Your task to perform on an android device: Go to battery settings Image 0: 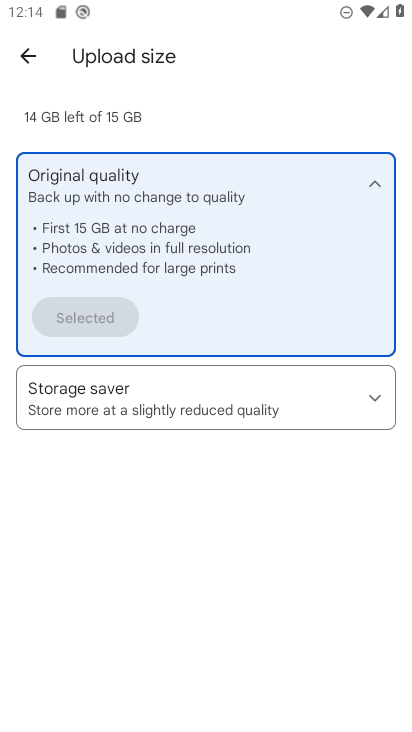
Step 0: press home button
Your task to perform on an android device: Go to battery settings Image 1: 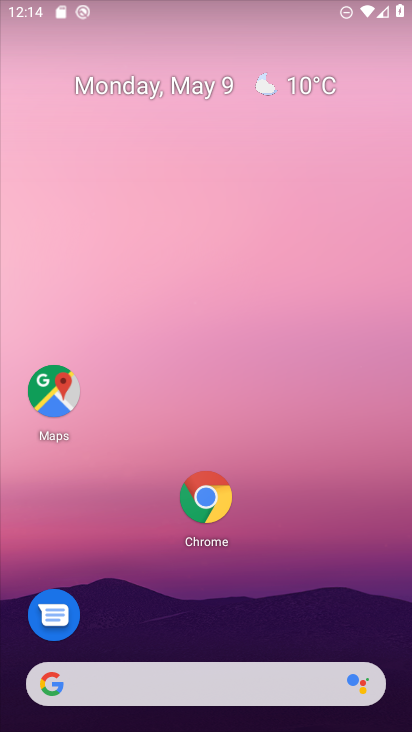
Step 1: drag from (325, 560) to (155, 15)
Your task to perform on an android device: Go to battery settings Image 2: 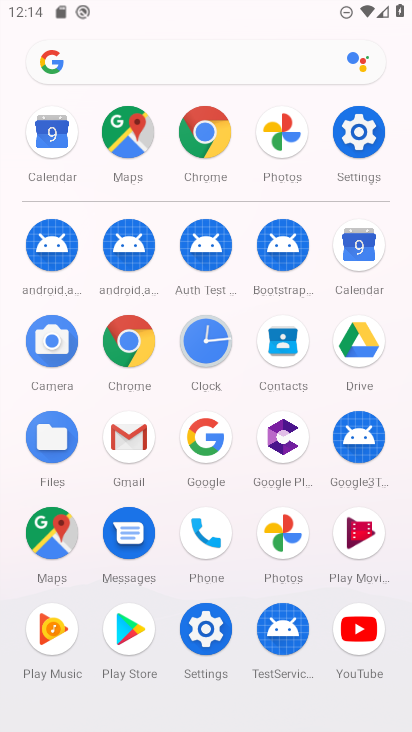
Step 2: click (350, 153)
Your task to perform on an android device: Go to battery settings Image 3: 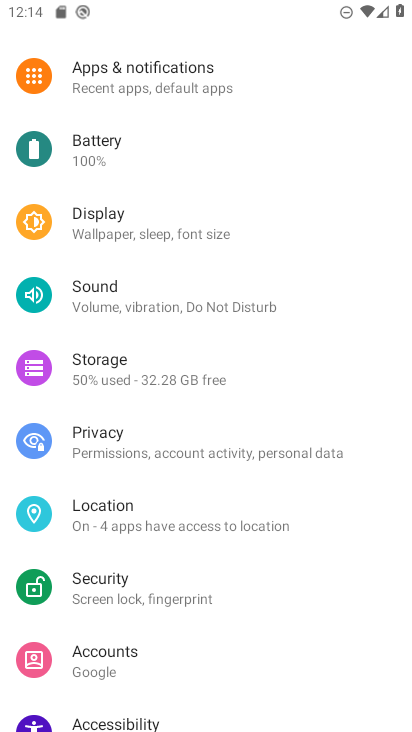
Step 3: click (139, 229)
Your task to perform on an android device: Go to battery settings Image 4: 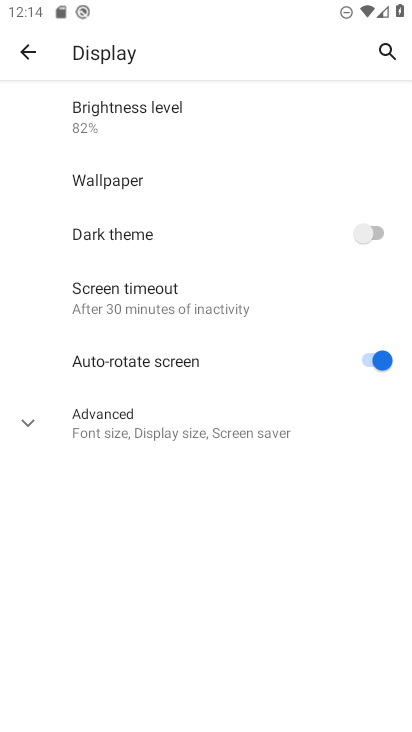
Step 4: task complete